Your task to perform on an android device: turn off notifications settings in the gmail app Image 0: 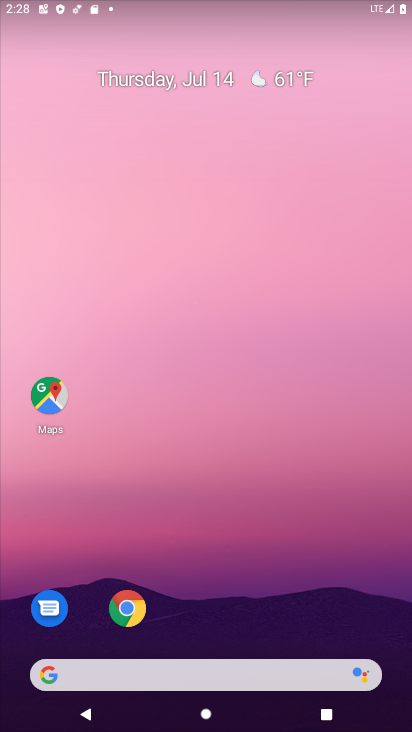
Step 0: drag from (218, 646) to (231, 208)
Your task to perform on an android device: turn off notifications settings in the gmail app Image 1: 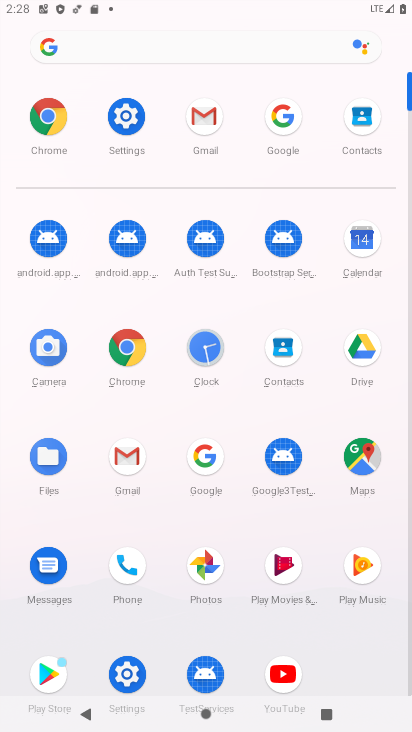
Step 1: click (111, 458)
Your task to perform on an android device: turn off notifications settings in the gmail app Image 2: 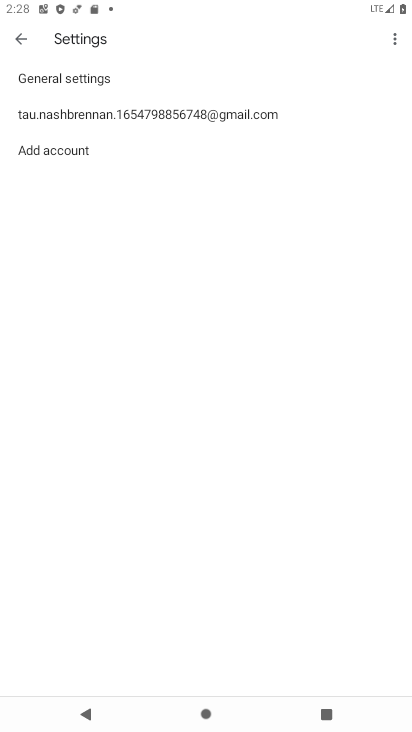
Step 2: click (70, 113)
Your task to perform on an android device: turn off notifications settings in the gmail app Image 3: 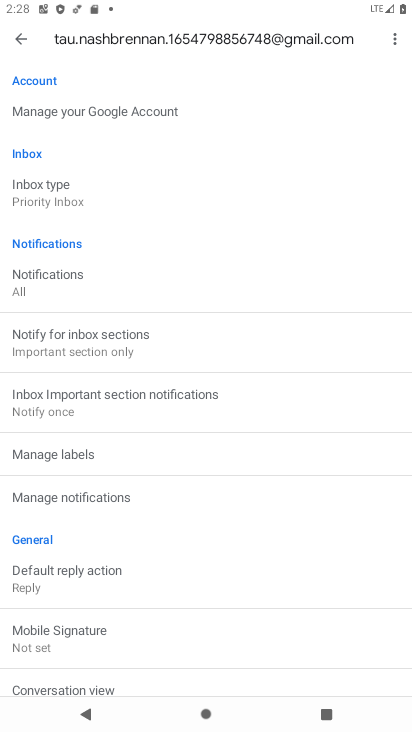
Step 3: click (49, 456)
Your task to perform on an android device: turn off notifications settings in the gmail app Image 4: 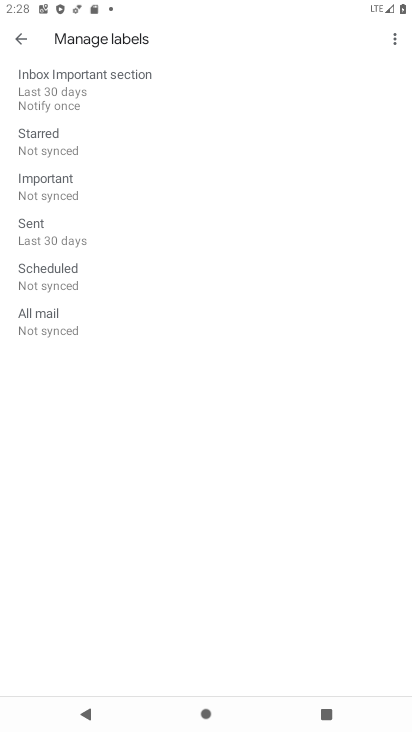
Step 4: click (19, 43)
Your task to perform on an android device: turn off notifications settings in the gmail app Image 5: 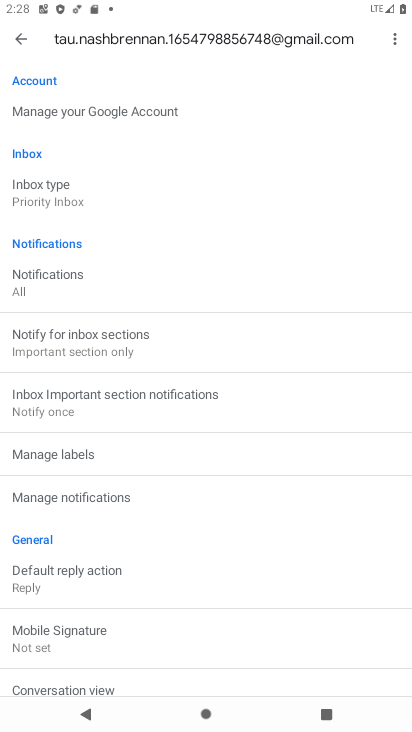
Step 5: click (55, 496)
Your task to perform on an android device: turn off notifications settings in the gmail app Image 6: 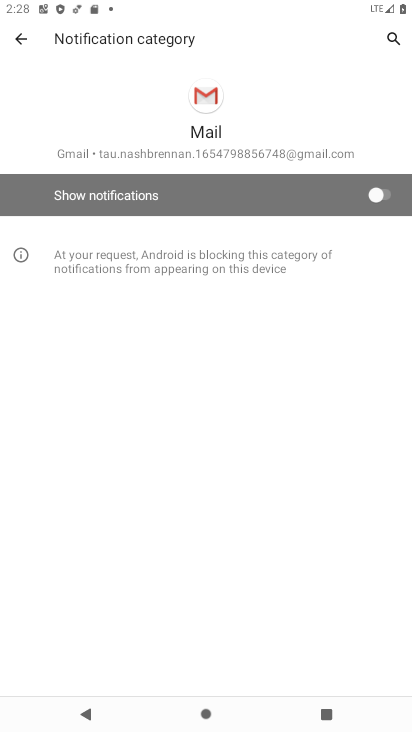
Step 6: task complete